Your task to perform on an android device: change alarm snooze length Image 0: 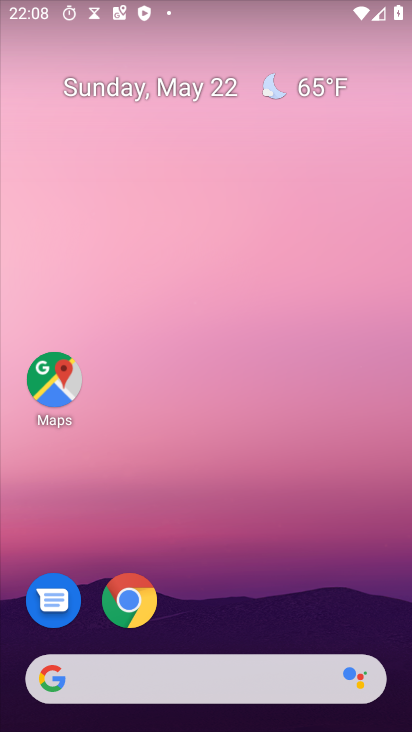
Step 0: drag from (209, 604) to (186, 224)
Your task to perform on an android device: change alarm snooze length Image 1: 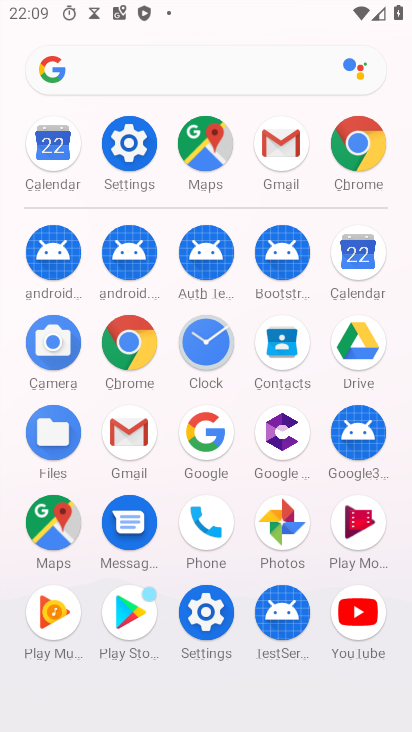
Step 1: click (213, 358)
Your task to perform on an android device: change alarm snooze length Image 2: 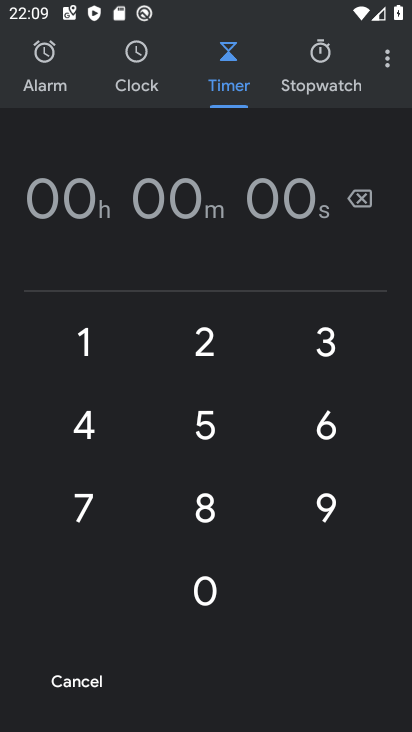
Step 2: click (386, 64)
Your task to perform on an android device: change alarm snooze length Image 3: 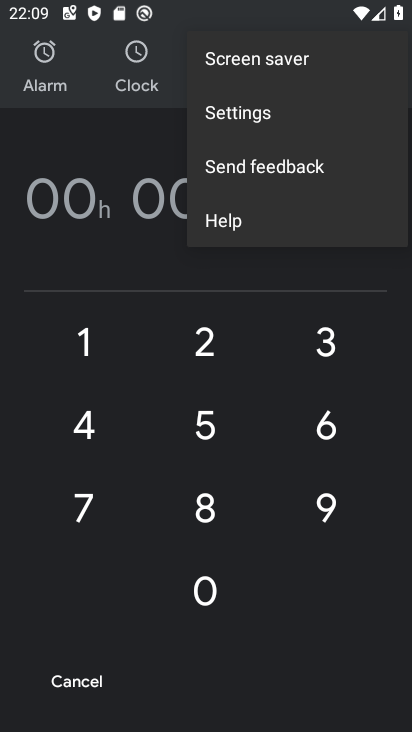
Step 3: click (285, 110)
Your task to perform on an android device: change alarm snooze length Image 4: 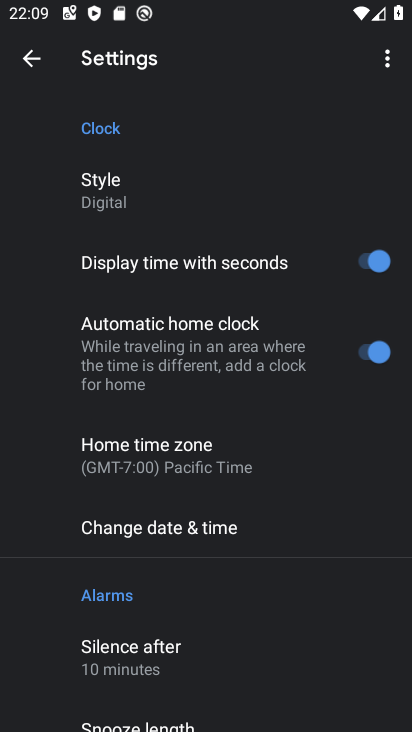
Step 4: click (140, 718)
Your task to perform on an android device: change alarm snooze length Image 5: 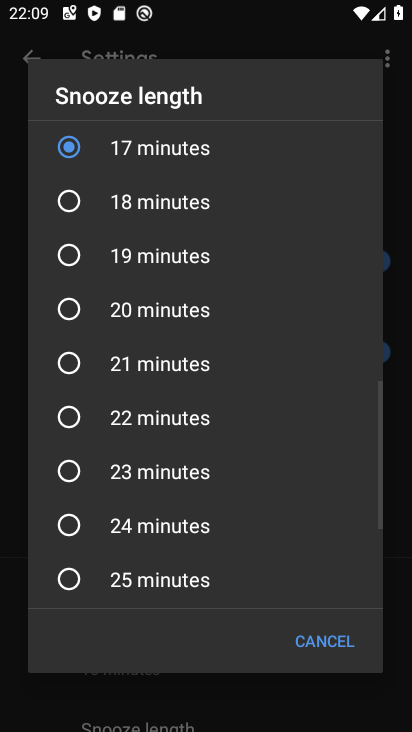
Step 5: click (73, 588)
Your task to perform on an android device: change alarm snooze length Image 6: 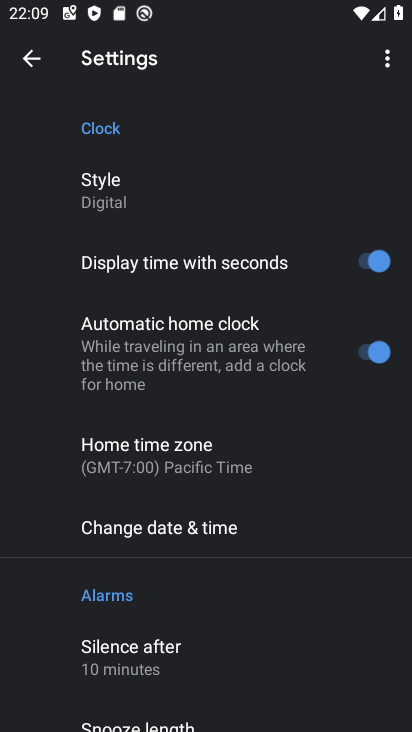
Step 6: task complete